Your task to perform on an android device: Empty the shopping cart on newegg. Add "asus zenbook" to the cart on newegg, then select checkout. Image 0: 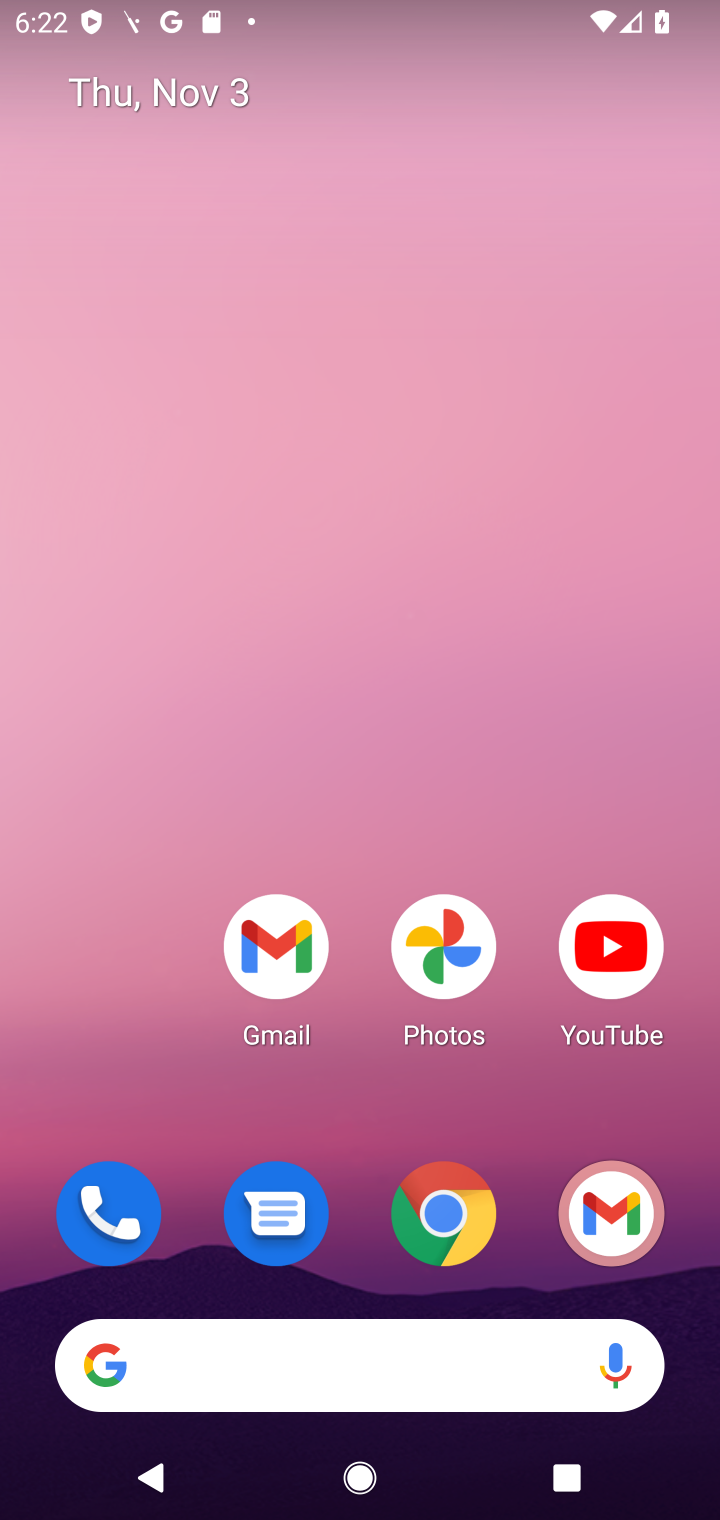
Step 0: click (447, 1237)
Your task to perform on an android device: Empty the shopping cart on newegg. Add "asus zenbook" to the cart on newegg, then select checkout. Image 1: 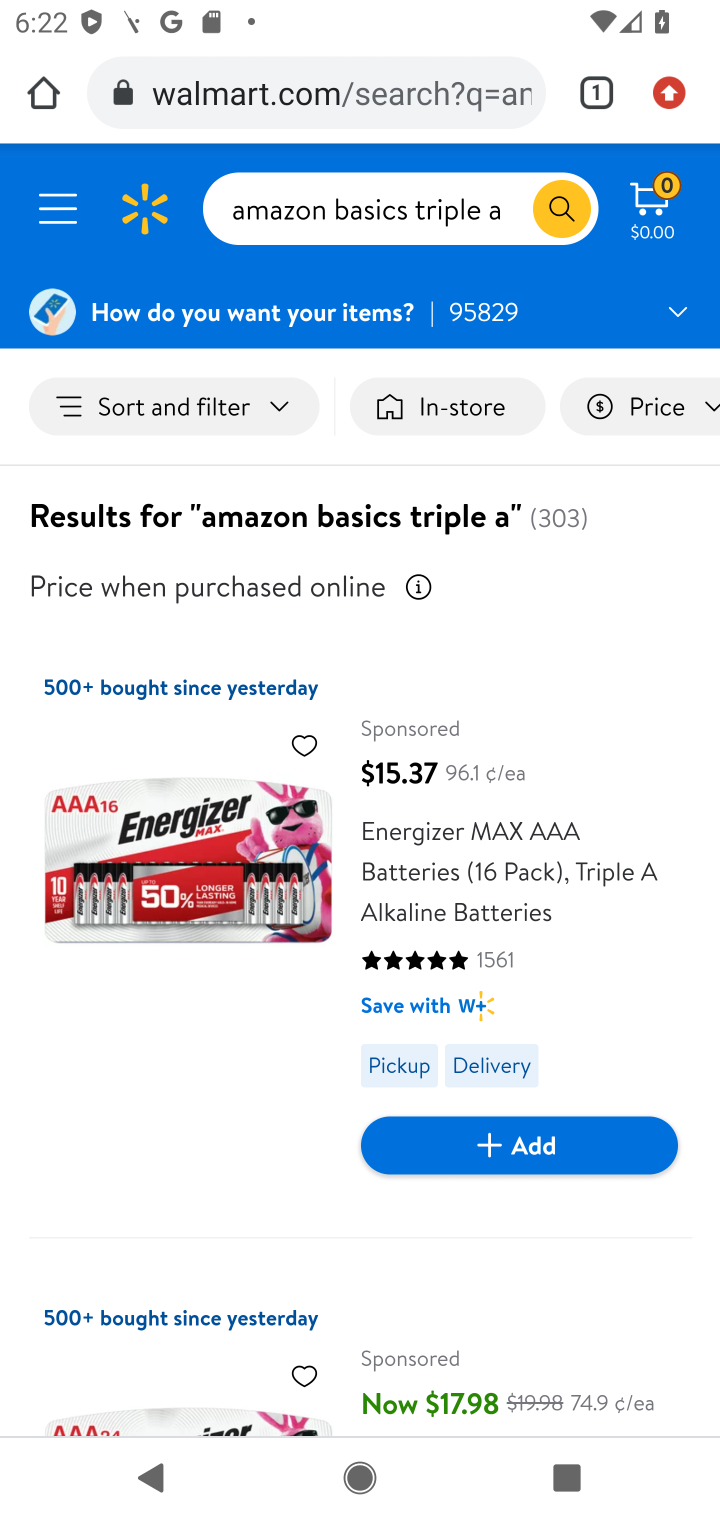
Step 1: click (346, 84)
Your task to perform on an android device: Empty the shopping cart on newegg. Add "asus zenbook" to the cart on newegg, then select checkout. Image 2: 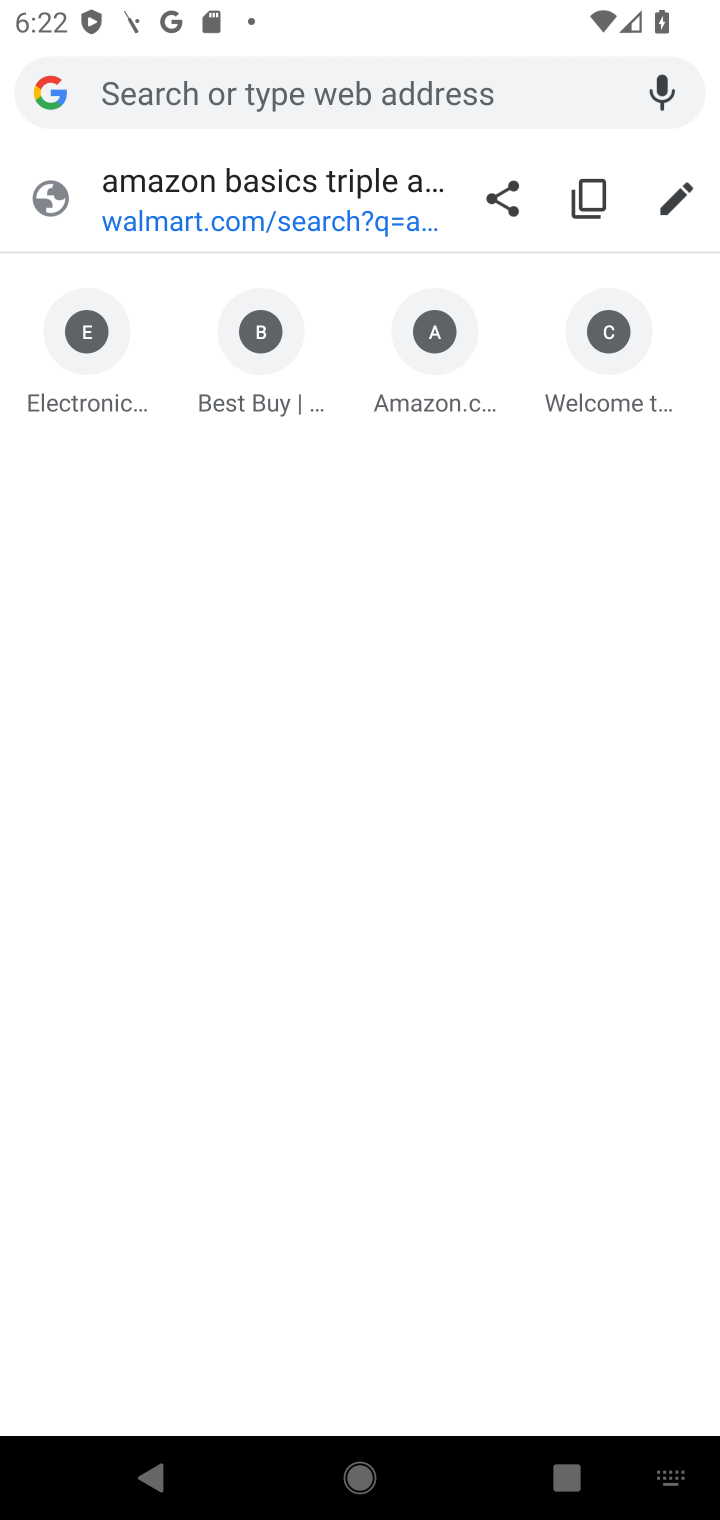
Step 2: type "newegg.com"
Your task to perform on an android device: Empty the shopping cart on newegg. Add "asus zenbook" to the cart on newegg, then select checkout. Image 3: 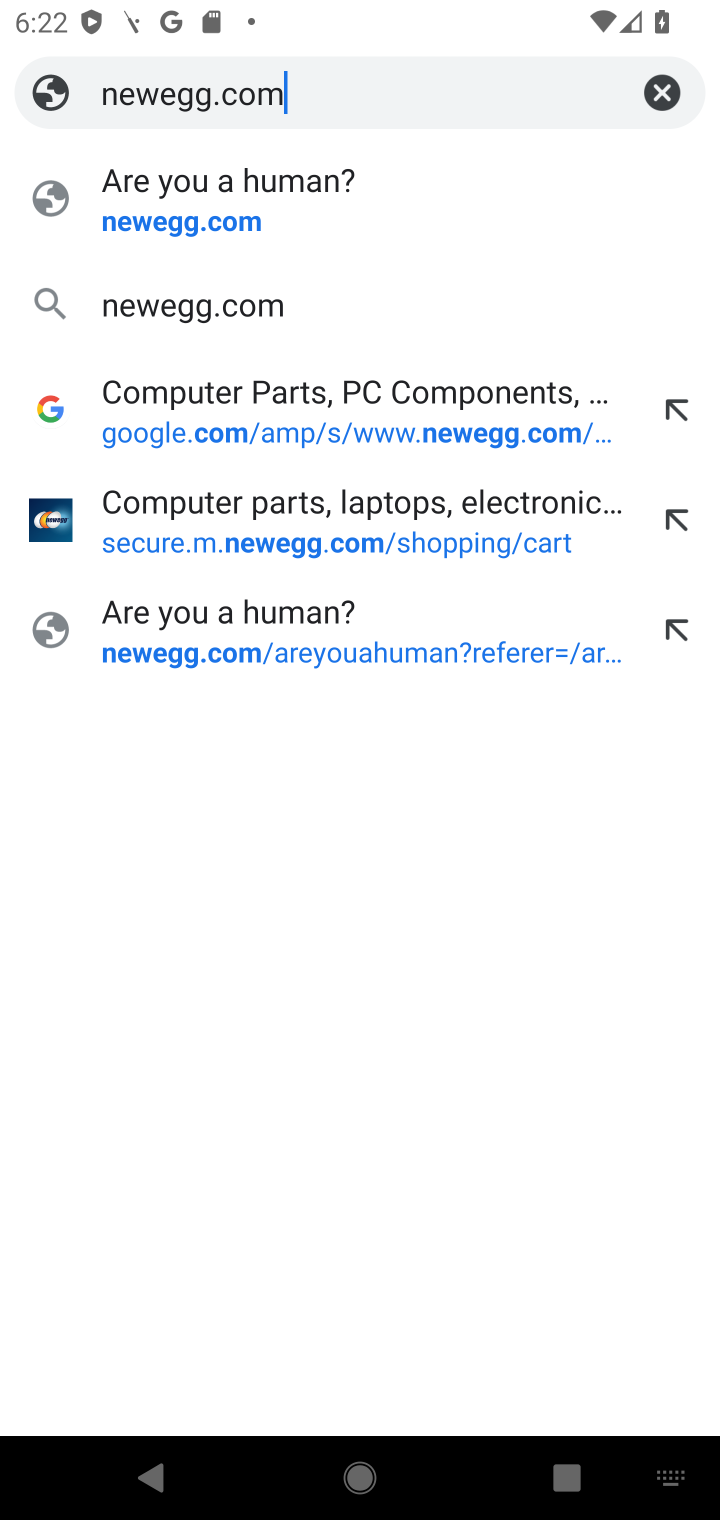
Step 3: click (205, 312)
Your task to perform on an android device: Empty the shopping cart on newegg. Add "asus zenbook" to the cart on newegg, then select checkout. Image 4: 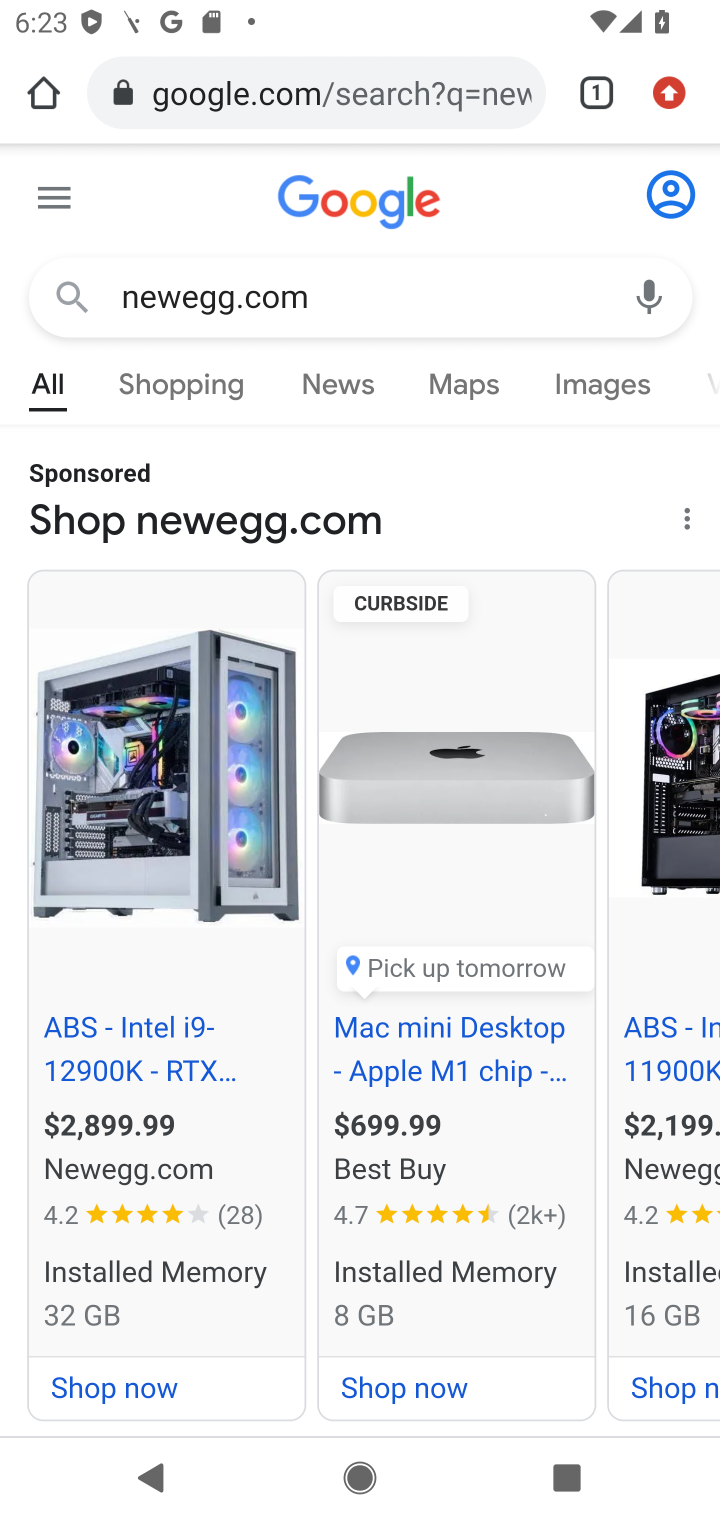
Step 4: drag from (351, 1098) to (316, 408)
Your task to perform on an android device: Empty the shopping cart on newegg. Add "asus zenbook" to the cart on newegg, then select checkout. Image 5: 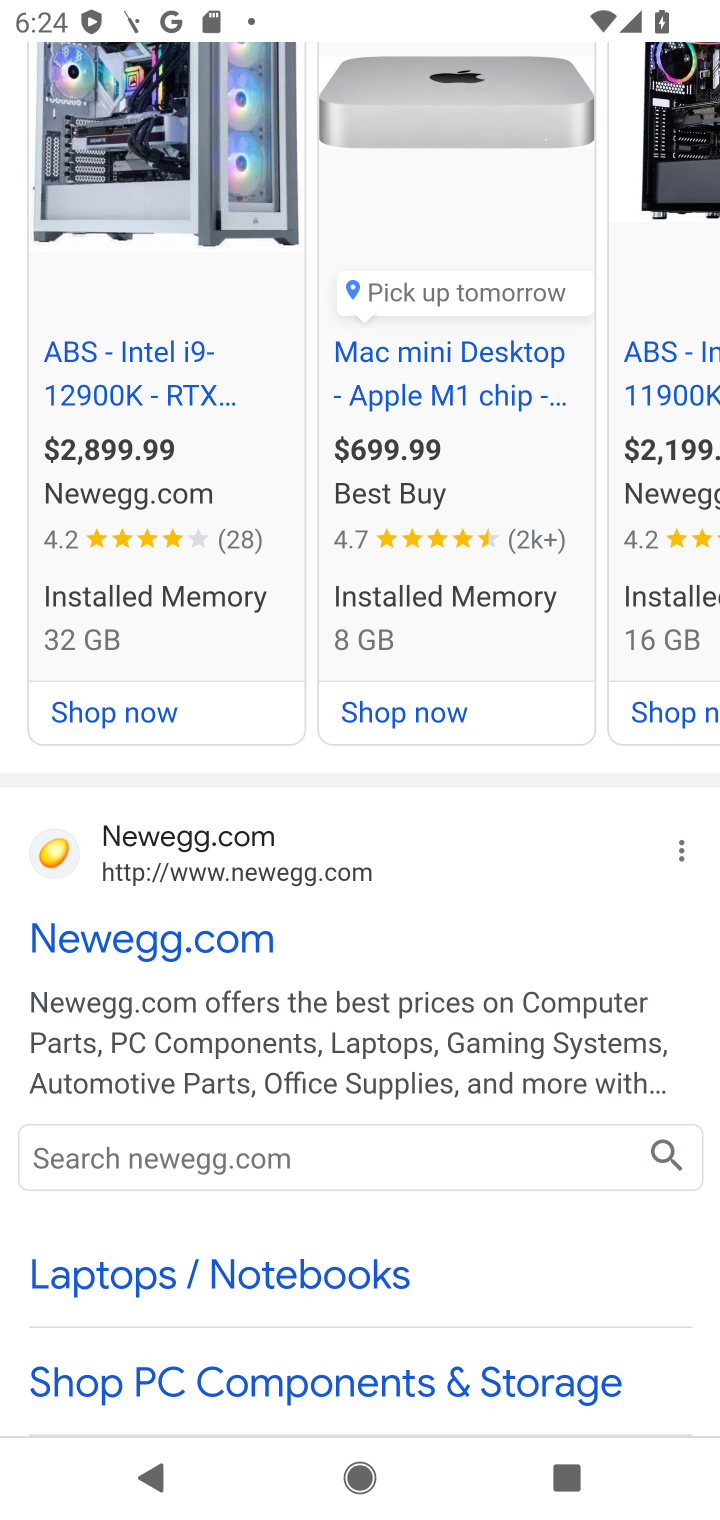
Step 5: click (140, 949)
Your task to perform on an android device: Empty the shopping cart on newegg. Add "asus zenbook" to the cart on newegg, then select checkout. Image 6: 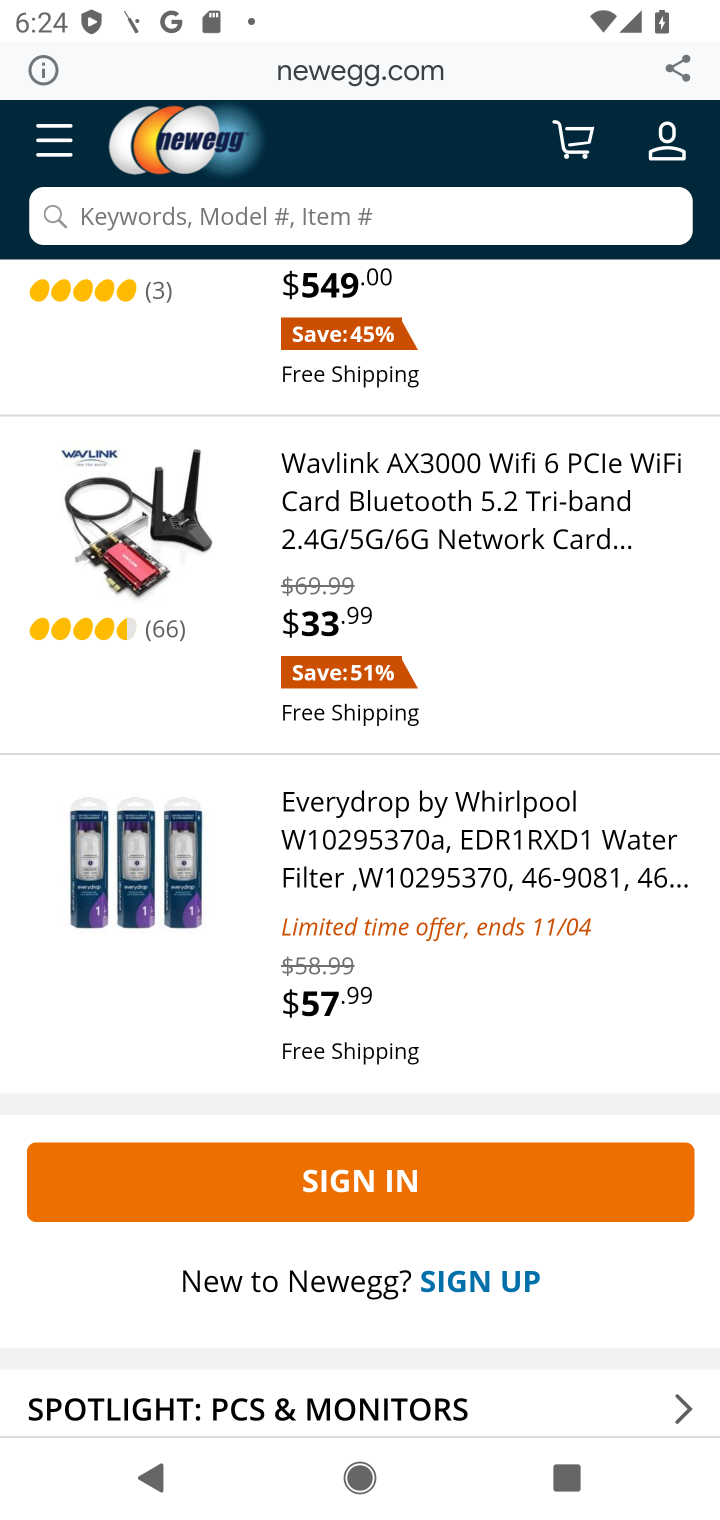
Step 6: click (570, 154)
Your task to perform on an android device: Empty the shopping cart on newegg. Add "asus zenbook" to the cart on newegg, then select checkout. Image 7: 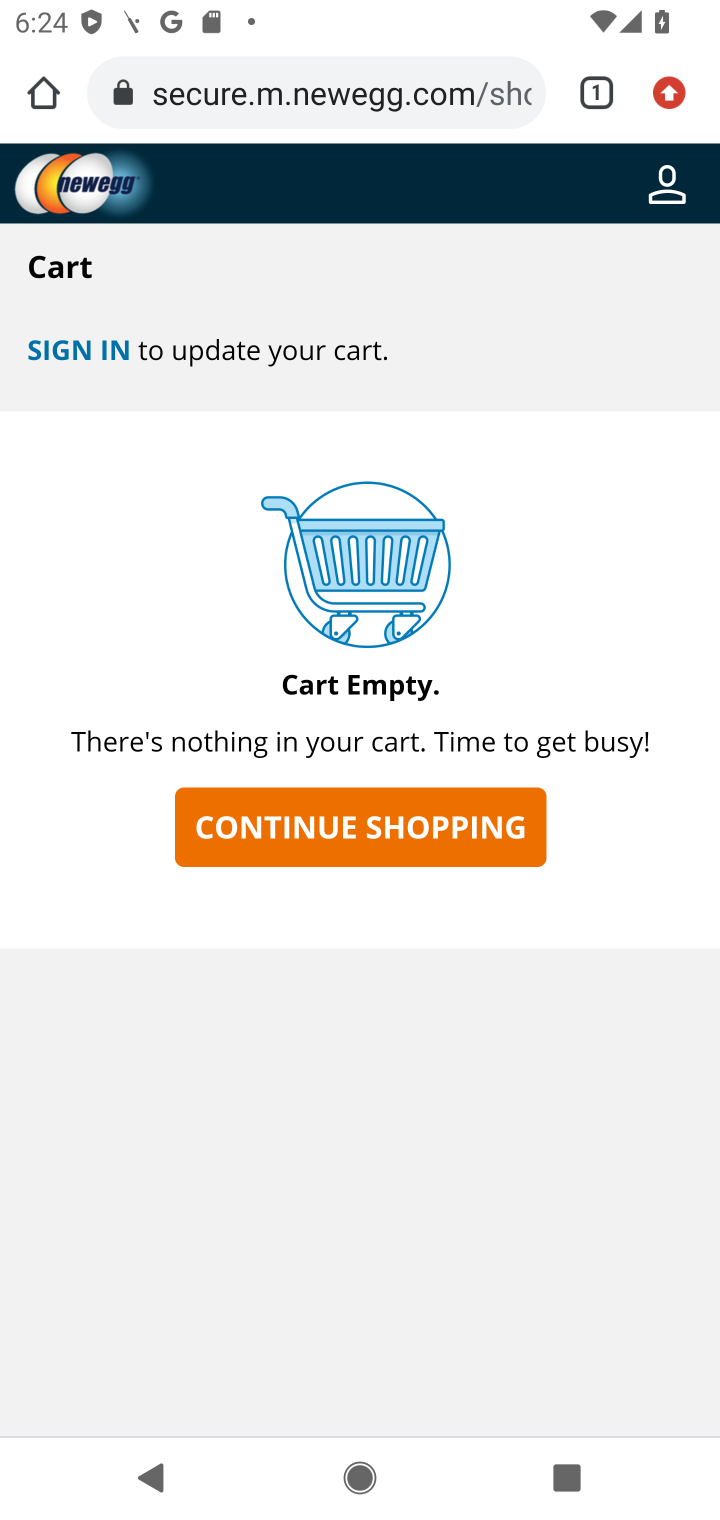
Step 7: press back button
Your task to perform on an android device: Empty the shopping cart on newegg. Add "asus zenbook" to the cart on newegg, then select checkout. Image 8: 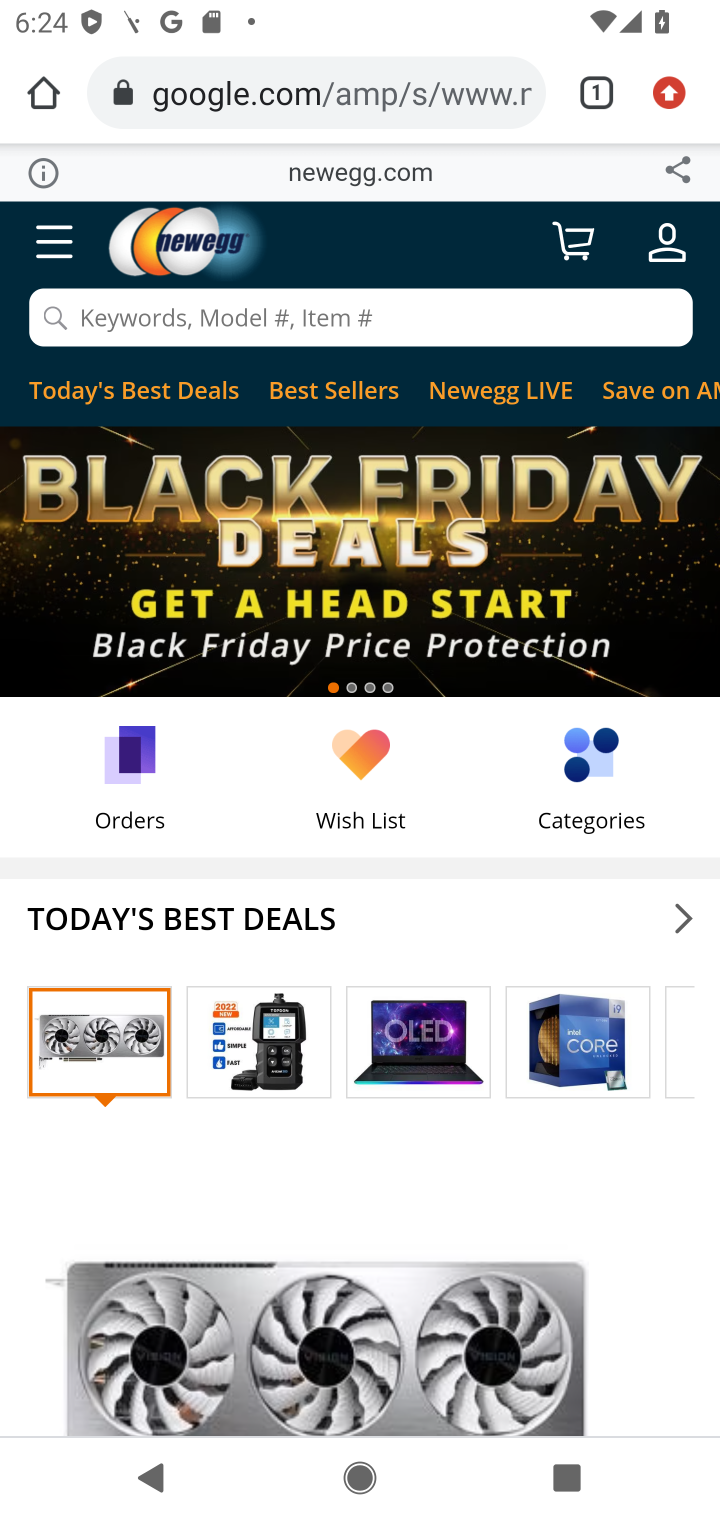
Step 8: click (219, 269)
Your task to perform on an android device: Empty the shopping cart on newegg. Add "asus zenbook" to the cart on newegg, then select checkout. Image 9: 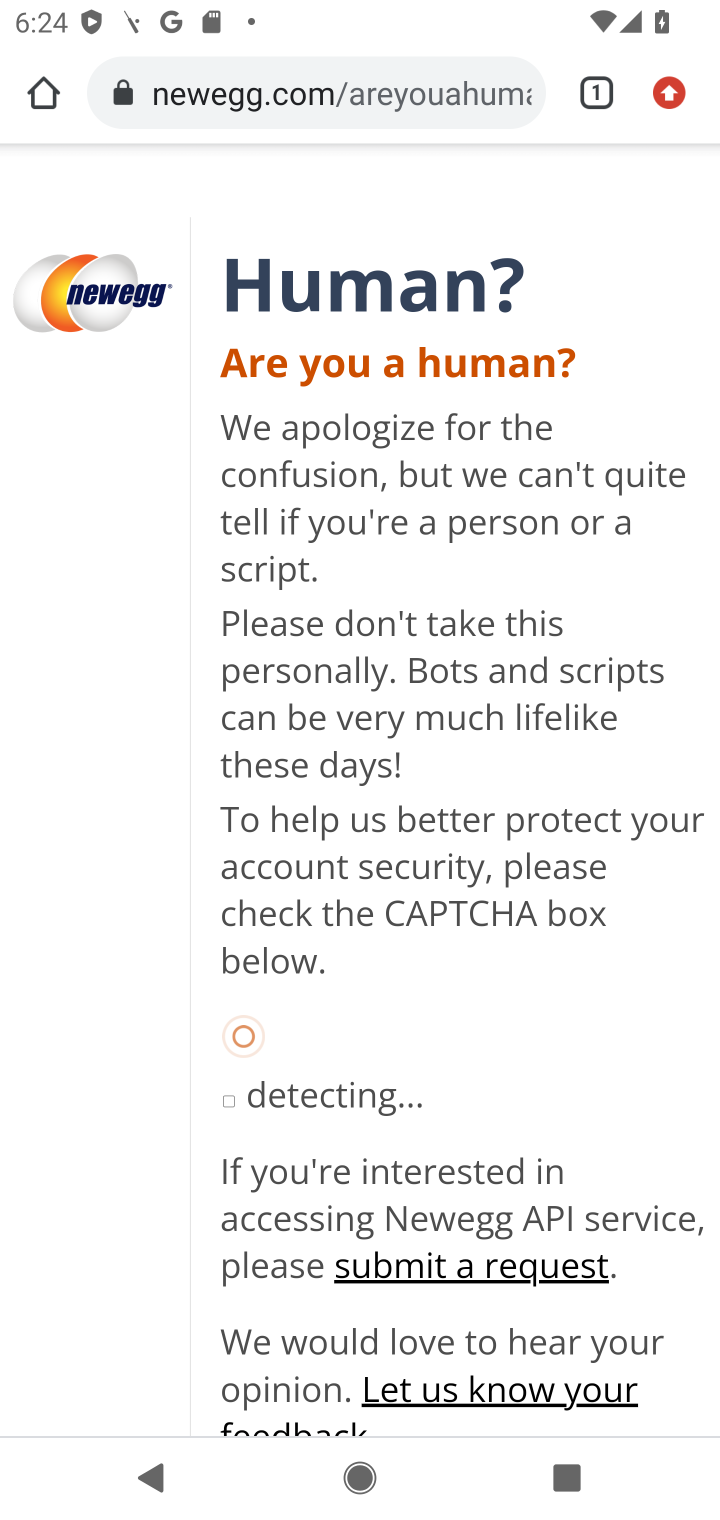
Step 9: press back button
Your task to perform on an android device: Empty the shopping cart on newegg. Add "asus zenbook" to the cart on newegg, then select checkout. Image 10: 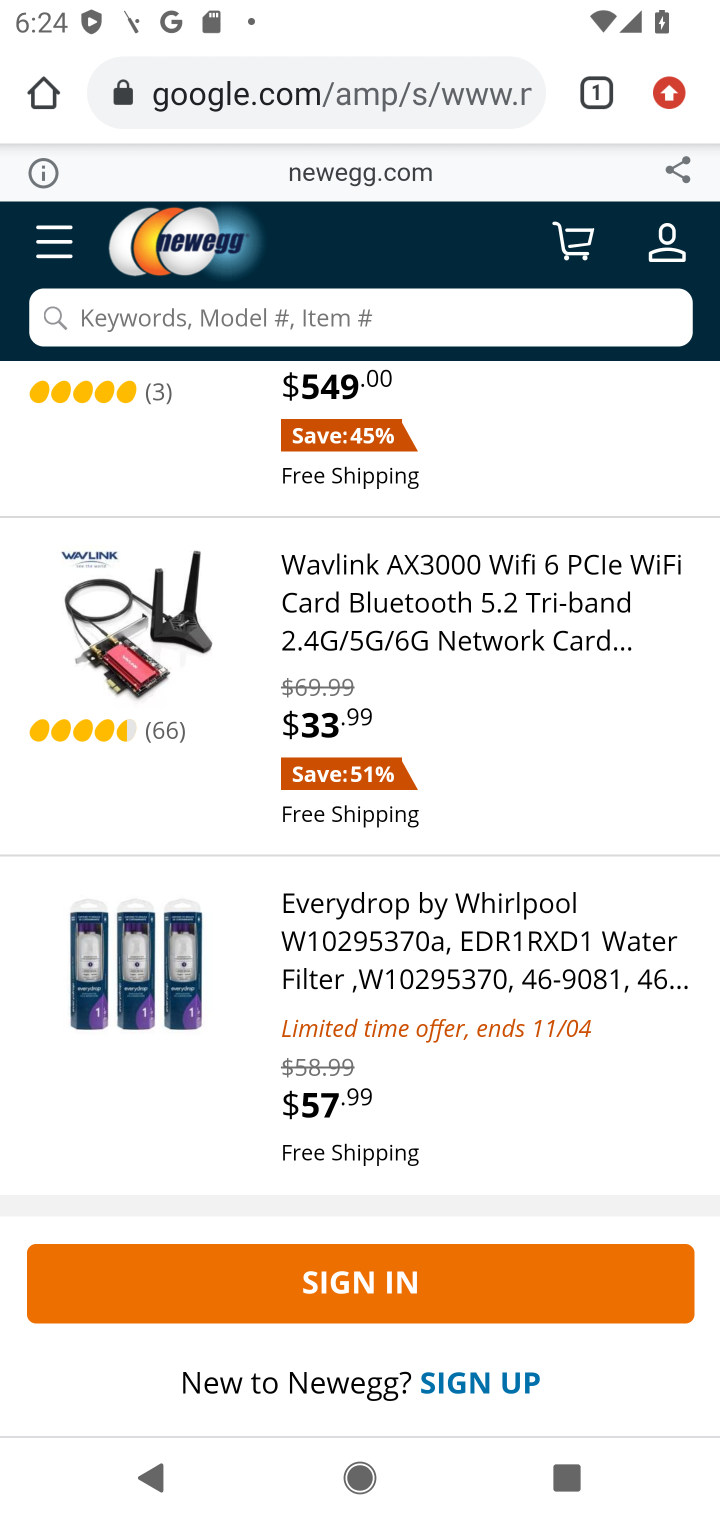
Step 10: click (159, 324)
Your task to perform on an android device: Empty the shopping cart on newegg. Add "asus zenbook" to the cart on newegg, then select checkout. Image 11: 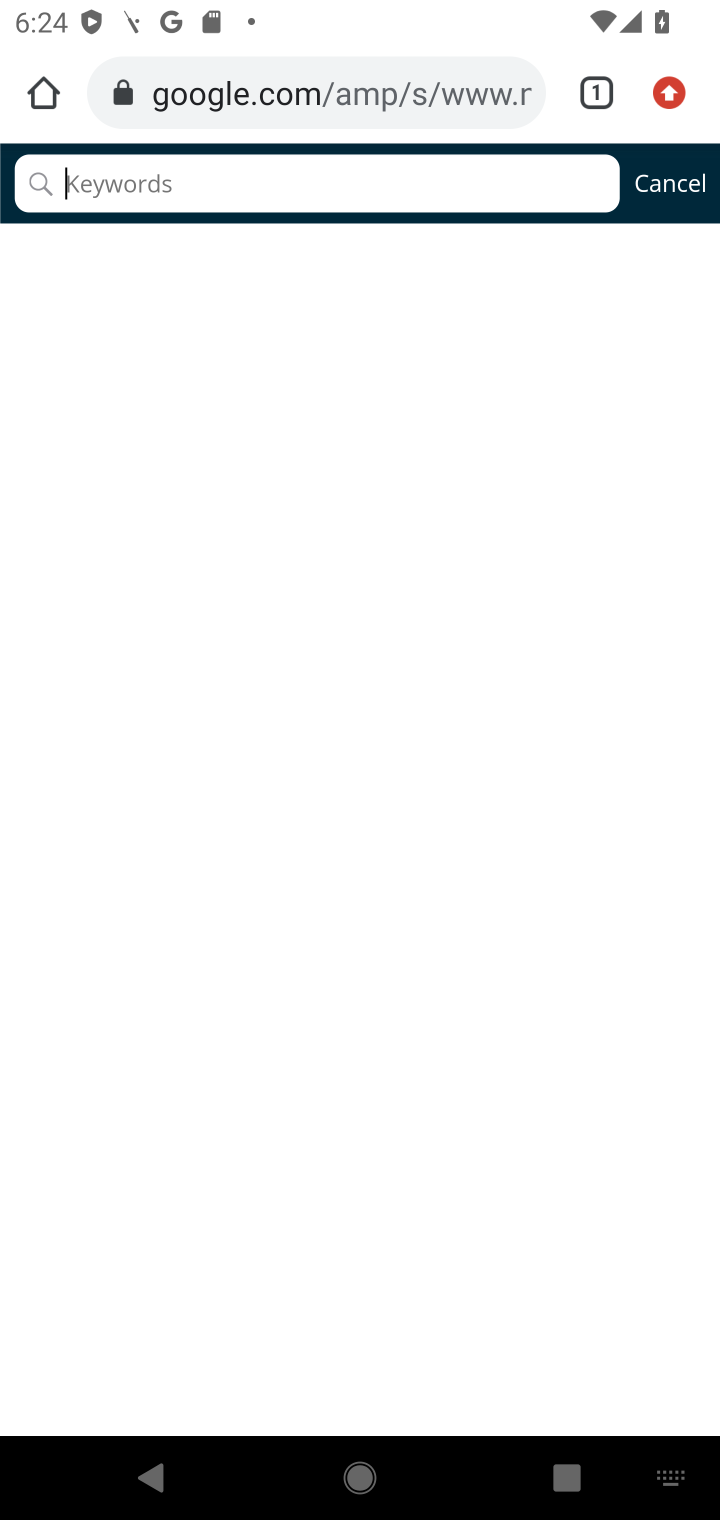
Step 11: type "asus zenbook"
Your task to perform on an android device: Empty the shopping cart on newegg. Add "asus zenbook" to the cart on newegg, then select checkout. Image 12: 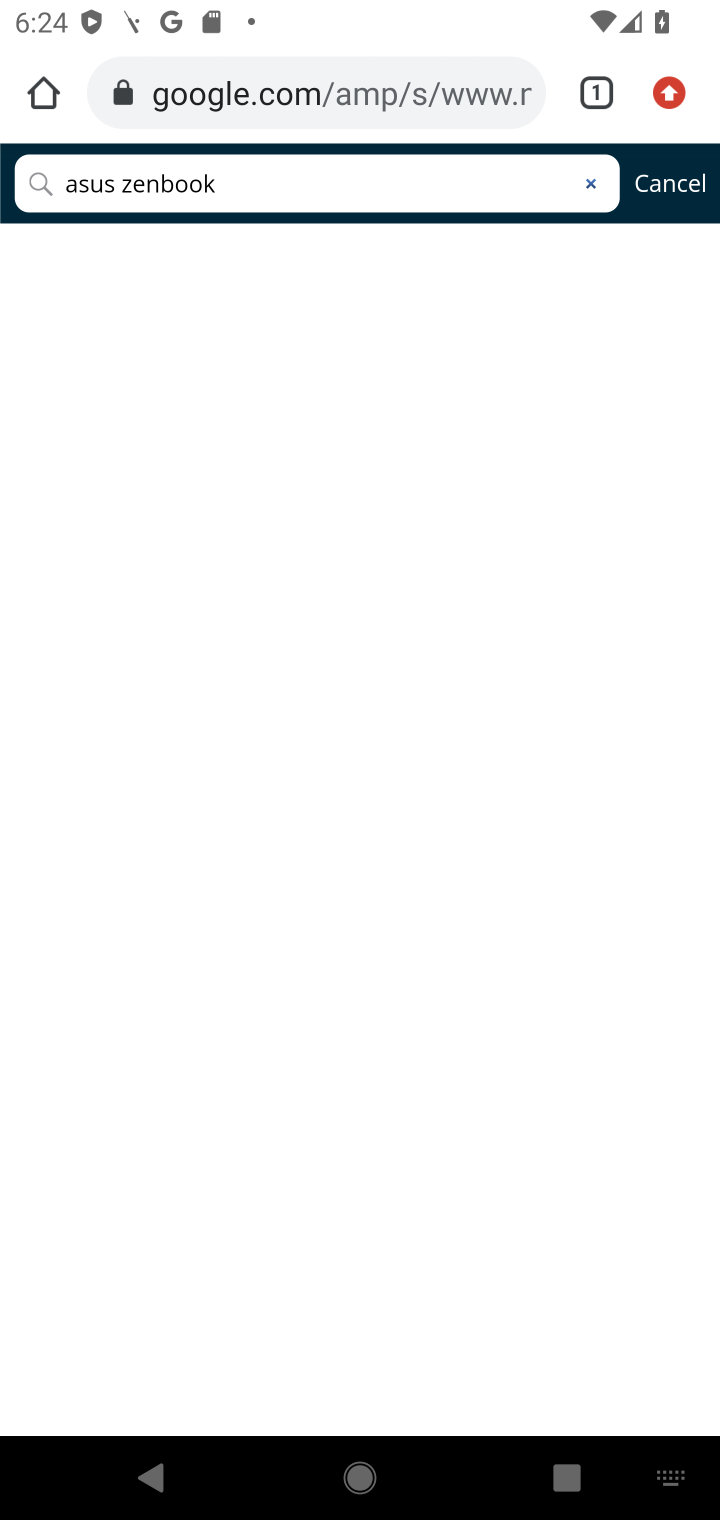
Step 12: click (39, 188)
Your task to perform on an android device: Empty the shopping cart on newegg. Add "asus zenbook" to the cart on newegg, then select checkout. Image 13: 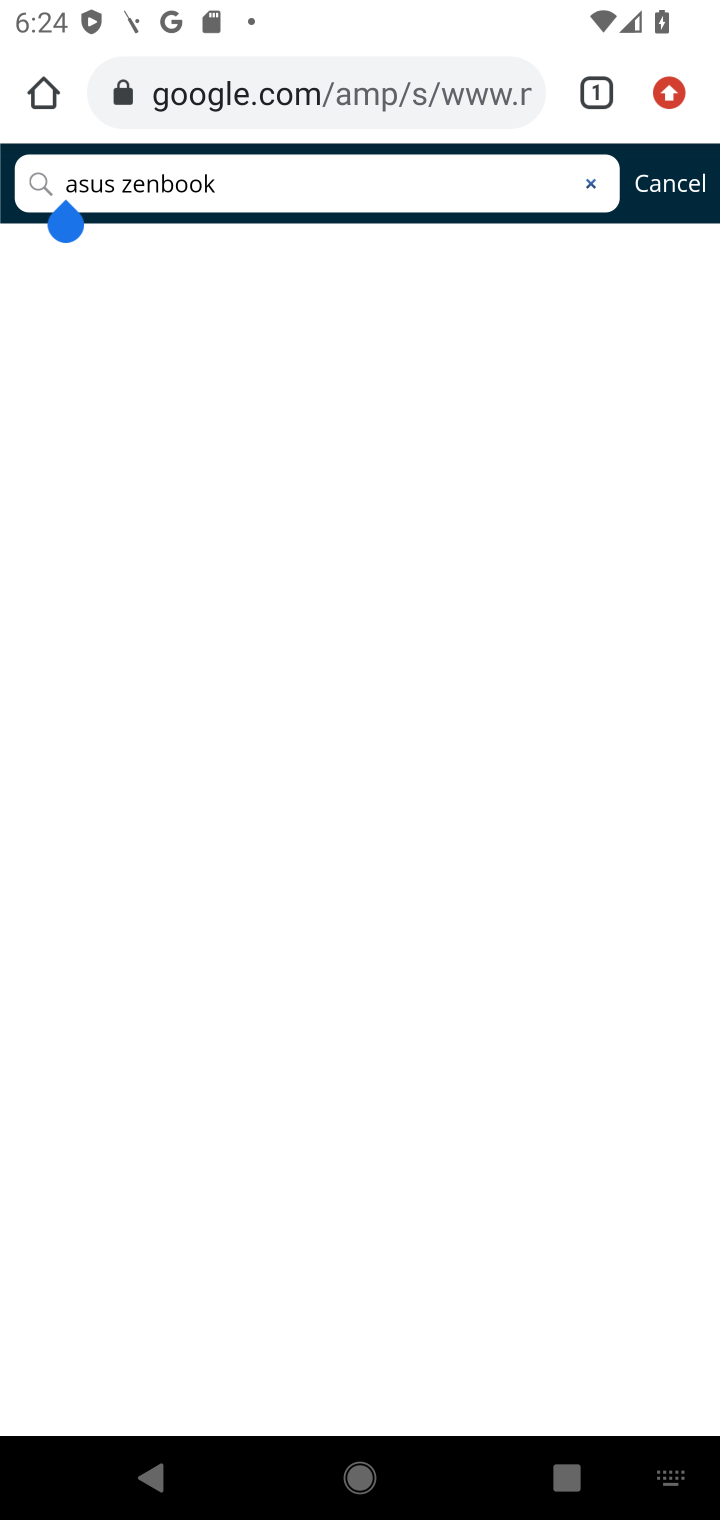
Step 13: task complete